Your task to perform on an android device: Go to Yahoo.com Image 0: 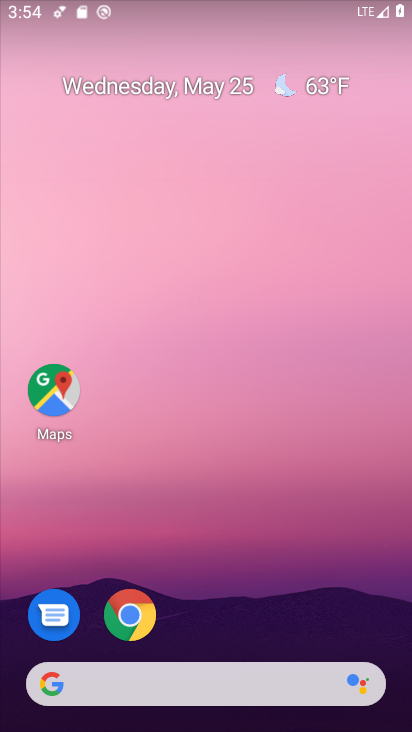
Step 0: click (118, 615)
Your task to perform on an android device: Go to Yahoo.com Image 1: 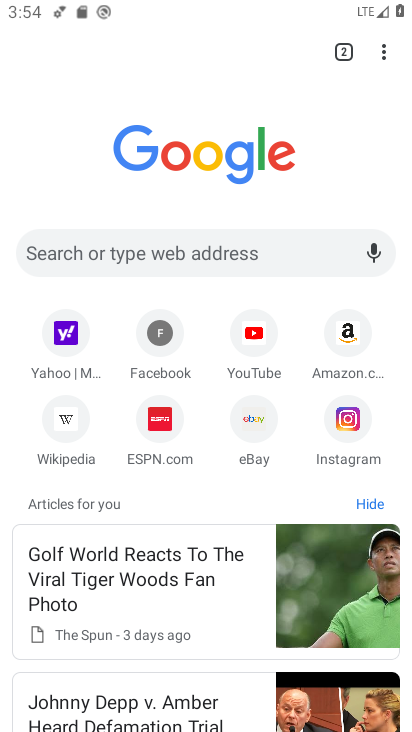
Step 1: click (68, 334)
Your task to perform on an android device: Go to Yahoo.com Image 2: 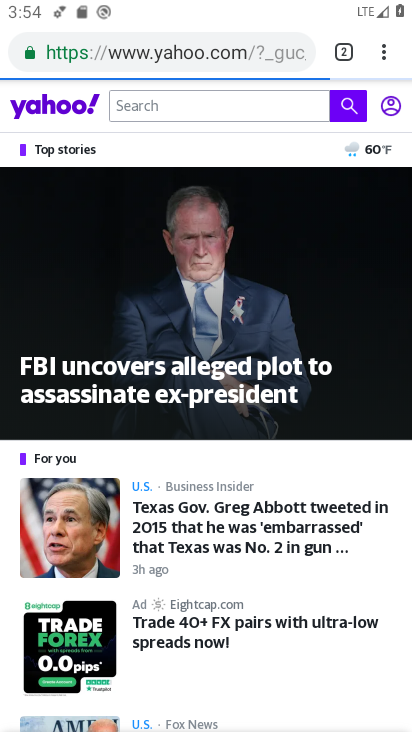
Step 2: task complete